Your task to perform on an android device: see tabs open on other devices in the chrome app Image 0: 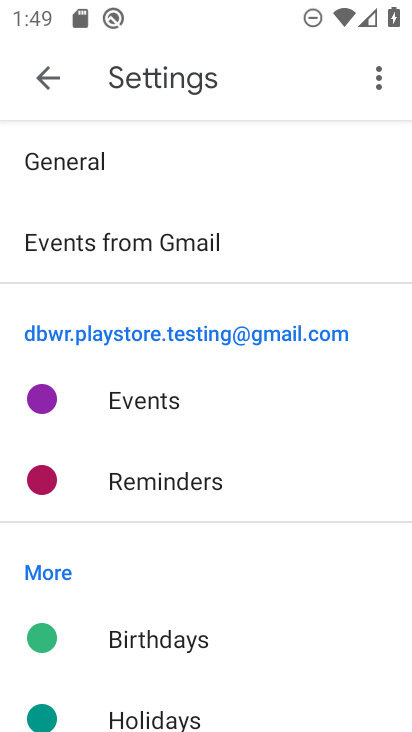
Step 0: press home button
Your task to perform on an android device: see tabs open on other devices in the chrome app Image 1: 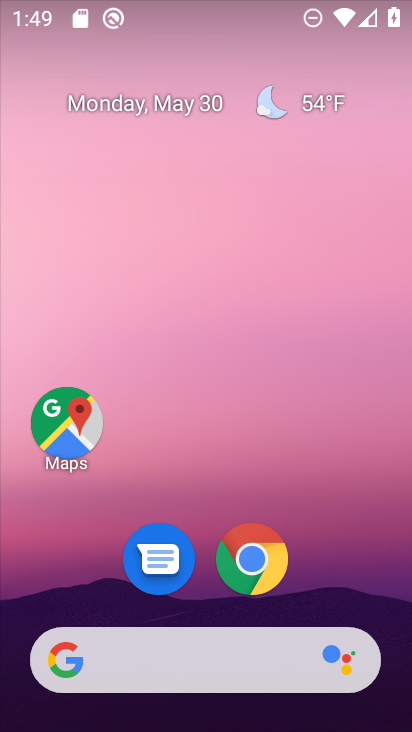
Step 1: click (249, 561)
Your task to perform on an android device: see tabs open on other devices in the chrome app Image 2: 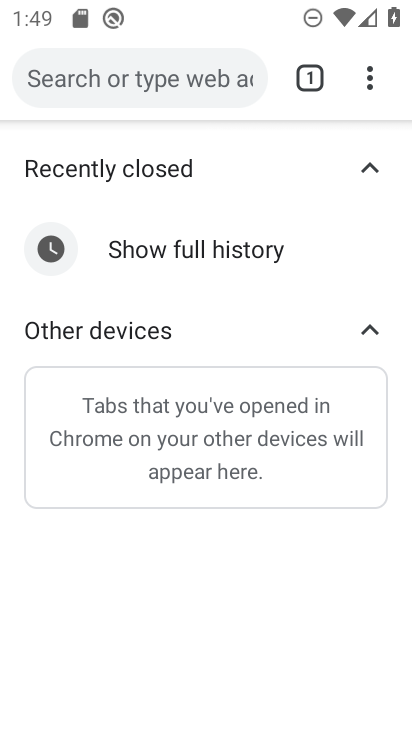
Step 2: click (362, 81)
Your task to perform on an android device: see tabs open on other devices in the chrome app Image 3: 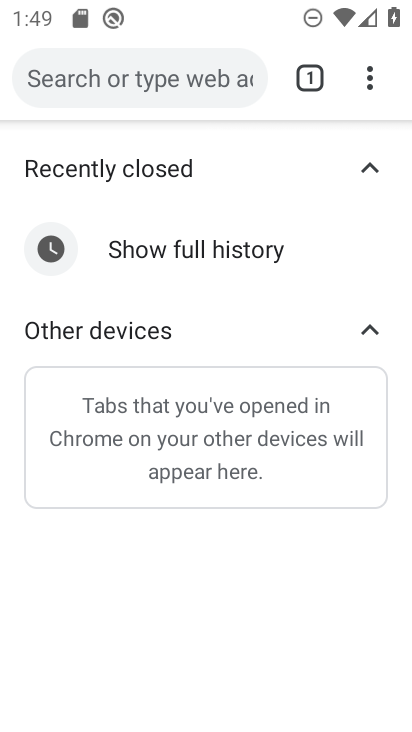
Step 3: click (370, 77)
Your task to perform on an android device: see tabs open on other devices in the chrome app Image 4: 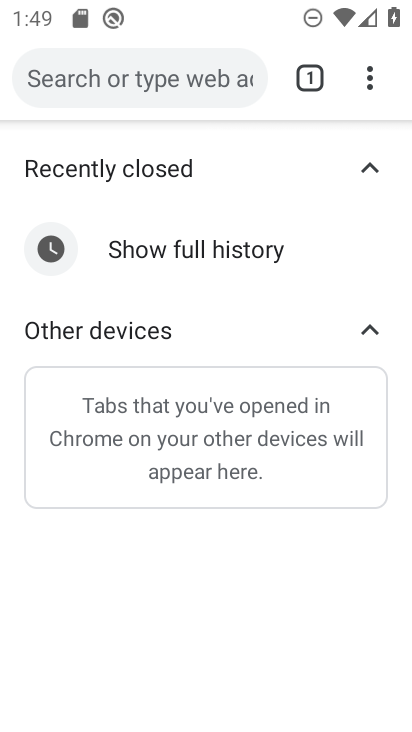
Step 4: click (370, 77)
Your task to perform on an android device: see tabs open on other devices in the chrome app Image 5: 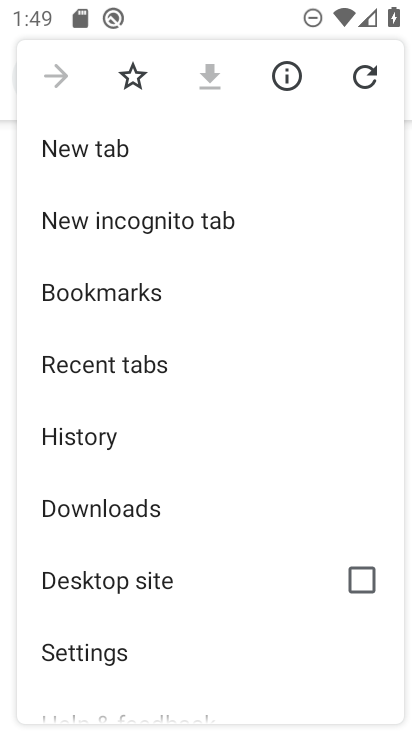
Step 5: click (100, 362)
Your task to perform on an android device: see tabs open on other devices in the chrome app Image 6: 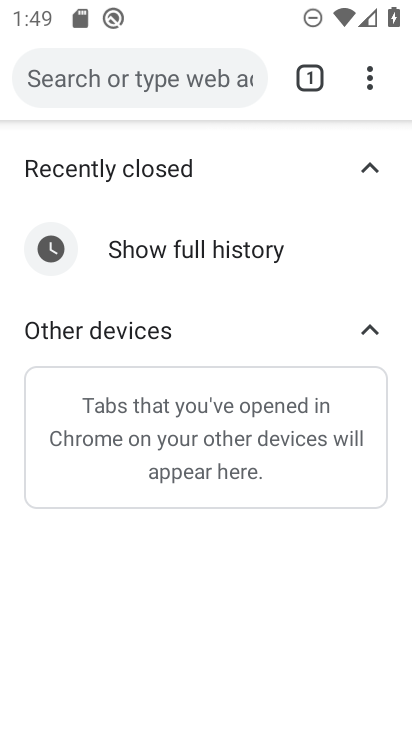
Step 6: task complete